Your task to perform on an android device: set an alarm Image 0: 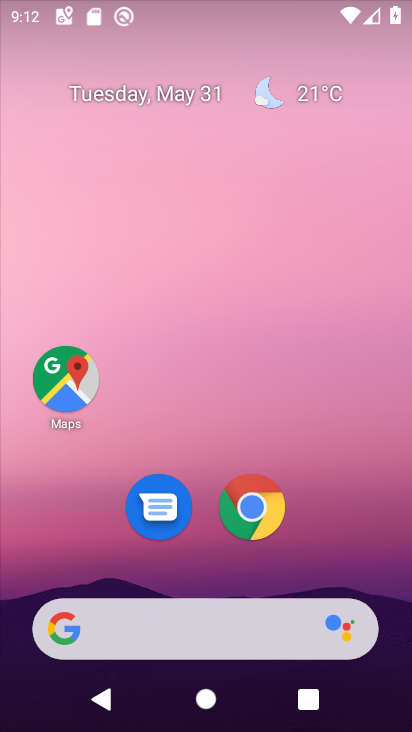
Step 0: drag from (280, 719) to (189, 120)
Your task to perform on an android device: set an alarm Image 1: 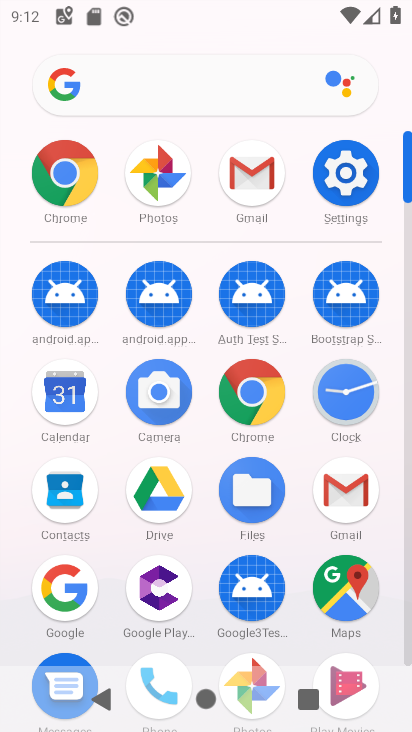
Step 1: click (340, 379)
Your task to perform on an android device: set an alarm Image 2: 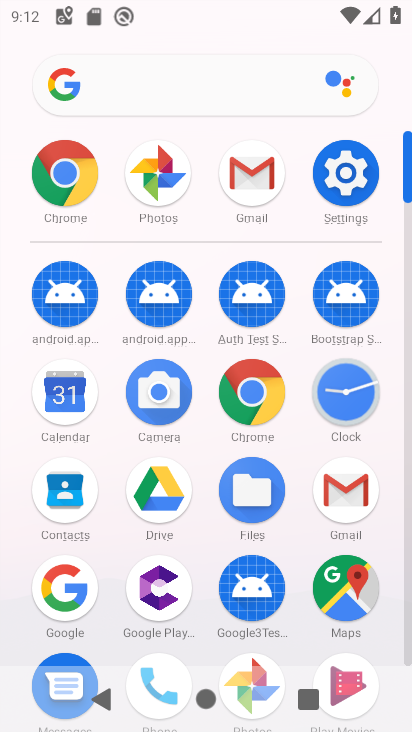
Step 2: click (345, 386)
Your task to perform on an android device: set an alarm Image 3: 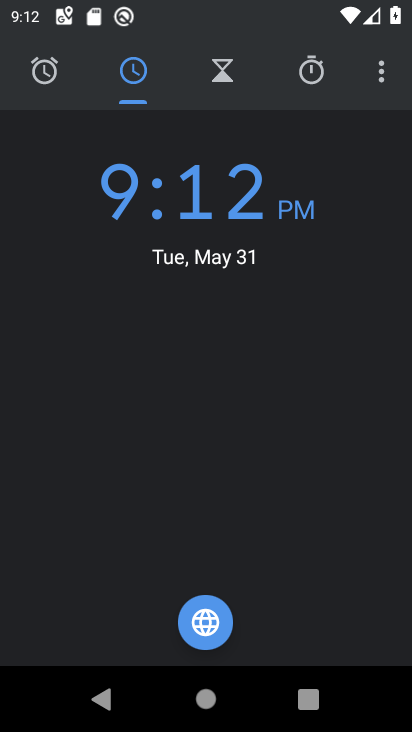
Step 3: click (46, 74)
Your task to perform on an android device: set an alarm Image 4: 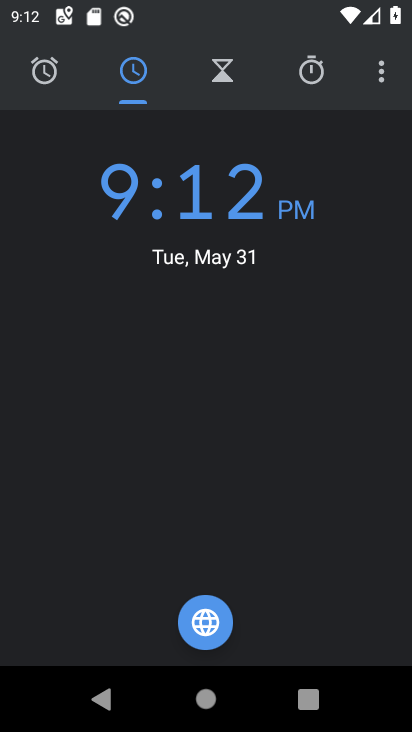
Step 4: click (46, 74)
Your task to perform on an android device: set an alarm Image 5: 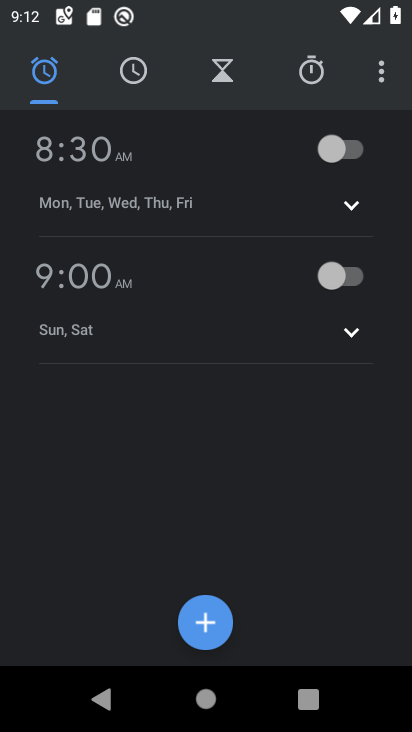
Step 5: click (328, 151)
Your task to perform on an android device: set an alarm Image 6: 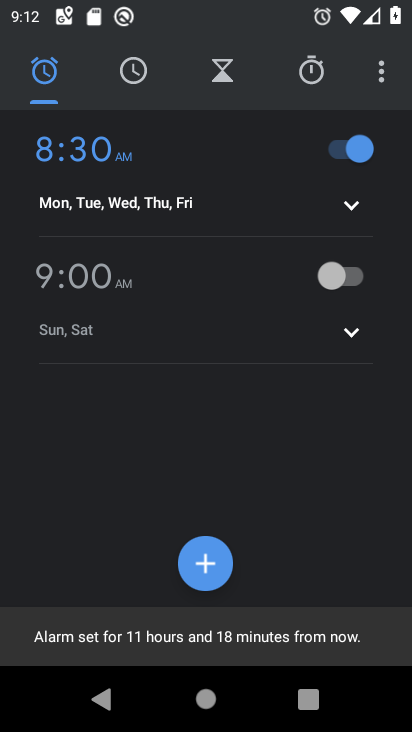
Step 6: task complete